Your task to perform on an android device: change the clock display to digital Image 0: 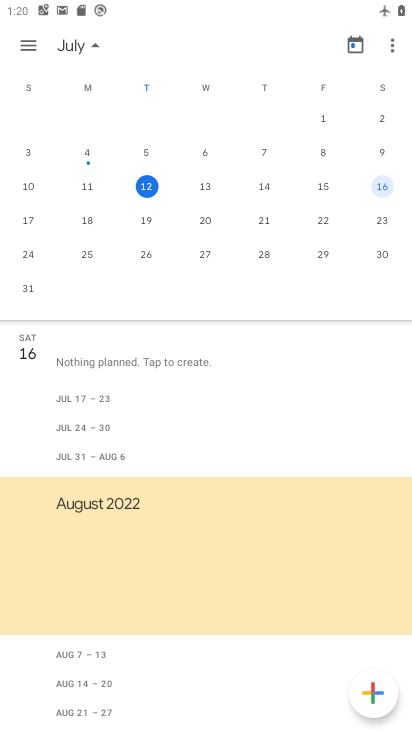
Step 0: press home button
Your task to perform on an android device: change the clock display to digital Image 1: 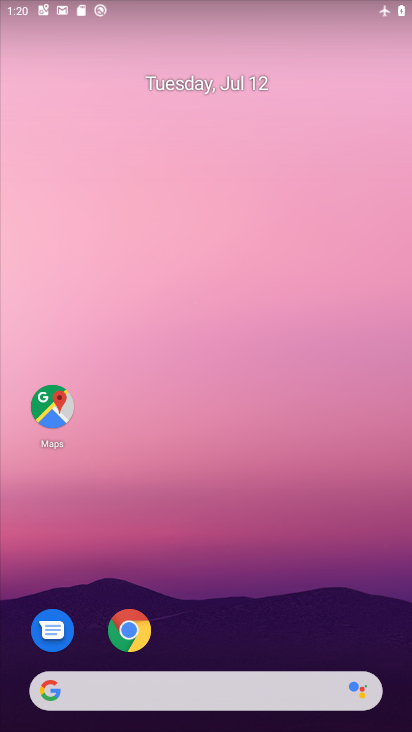
Step 1: drag from (265, 514) to (361, 127)
Your task to perform on an android device: change the clock display to digital Image 2: 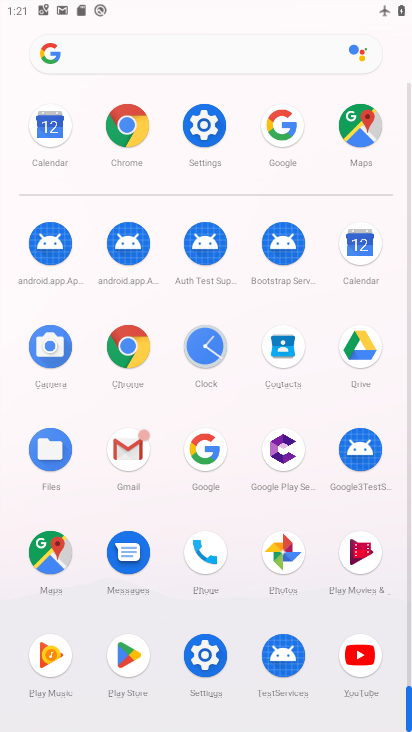
Step 2: click (211, 351)
Your task to perform on an android device: change the clock display to digital Image 3: 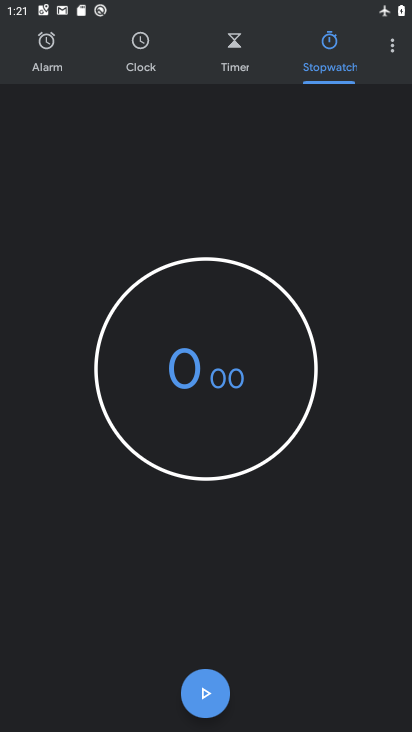
Step 3: click (397, 49)
Your task to perform on an android device: change the clock display to digital Image 4: 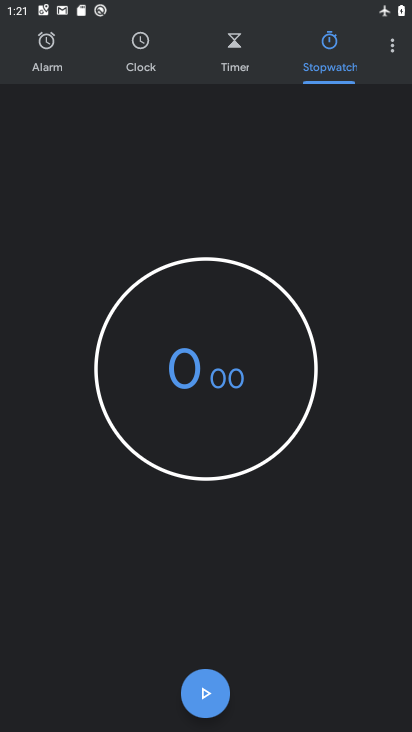
Step 4: click (396, 54)
Your task to perform on an android device: change the clock display to digital Image 5: 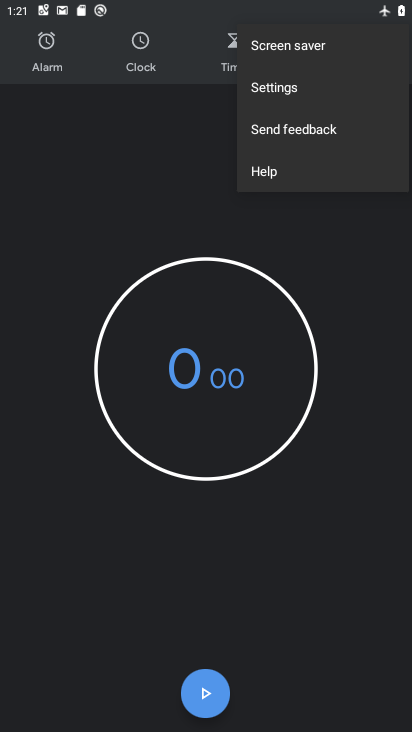
Step 5: click (258, 101)
Your task to perform on an android device: change the clock display to digital Image 6: 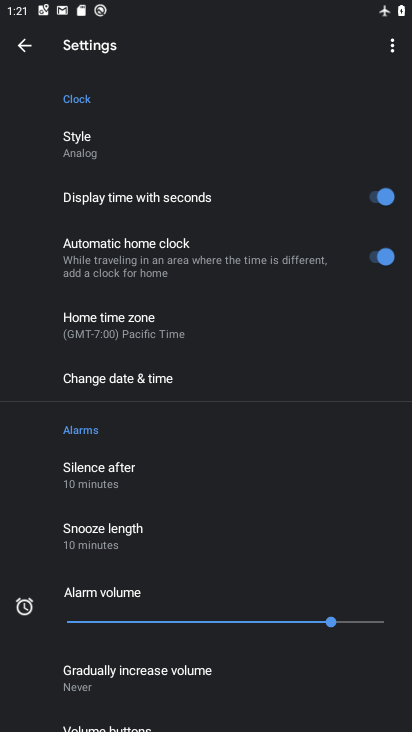
Step 6: click (125, 155)
Your task to perform on an android device: change the clock display to digital Image 7: 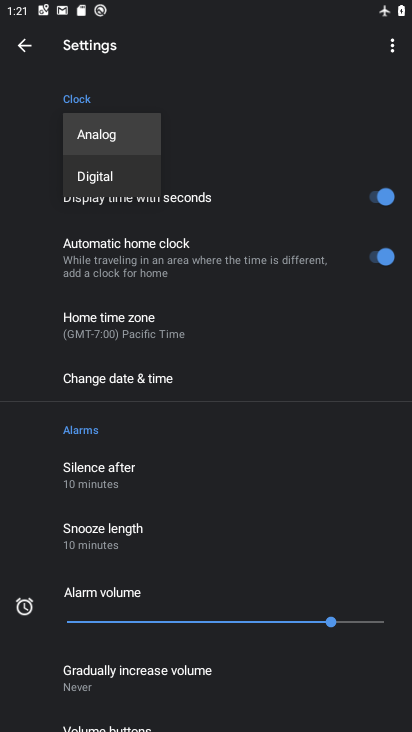
Step 7: click (117, 171)
Your task to perform on an android device: change the clock display to digital Image 8: 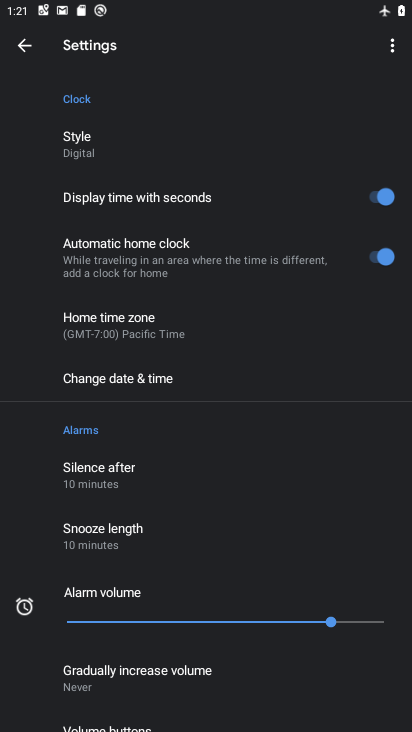
Step 8: task complete